Your task to perform on an android device: check android version Image 0: 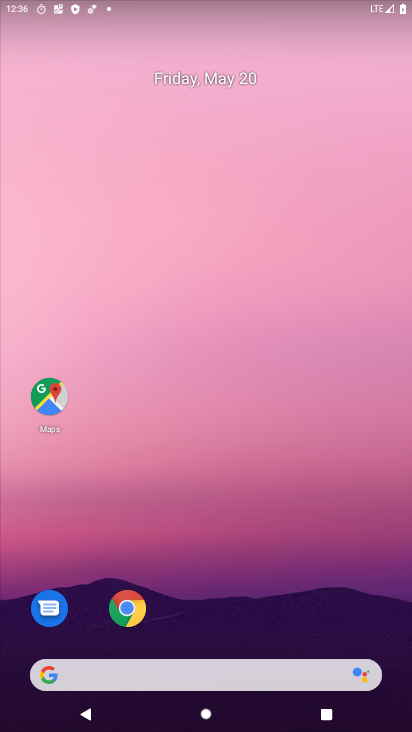
Step 0: drag from (289, 568) to (327, 89)
Your task to perform on an android device: check android version Image 1: 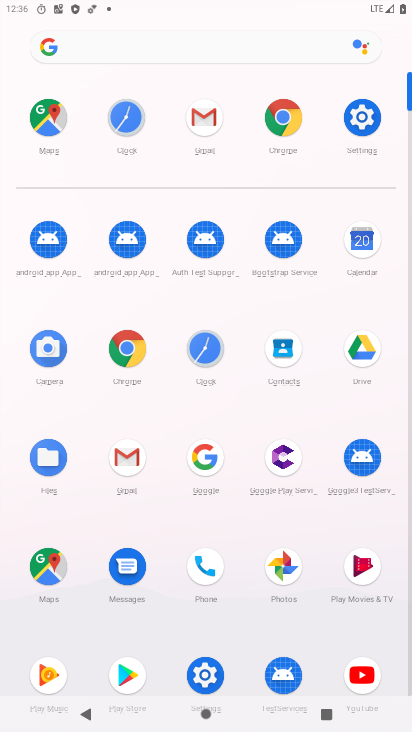
Step 1: click (359, 127)
Your task to perform on an android device: check android version Image 2: 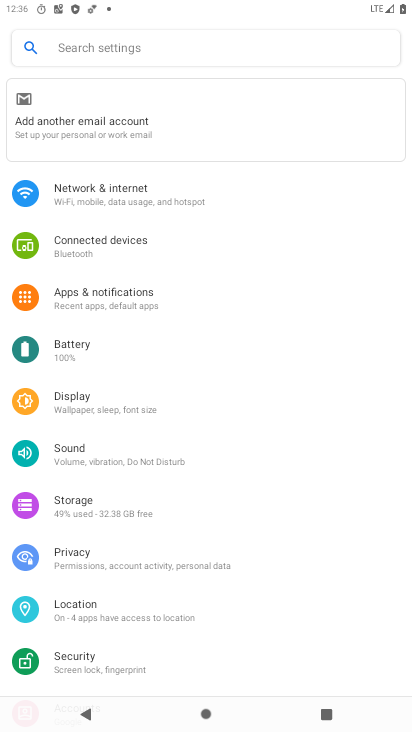
Step 2: drag from (156, 607) to (161, 165)
Your task to perform on an android device: check android version Image 3: 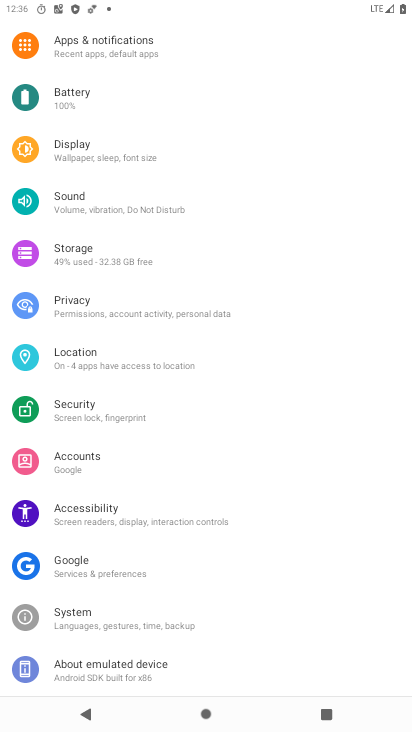
Step 3: click (72, 656)
Your task to perform on an android device: check android version Image 4: 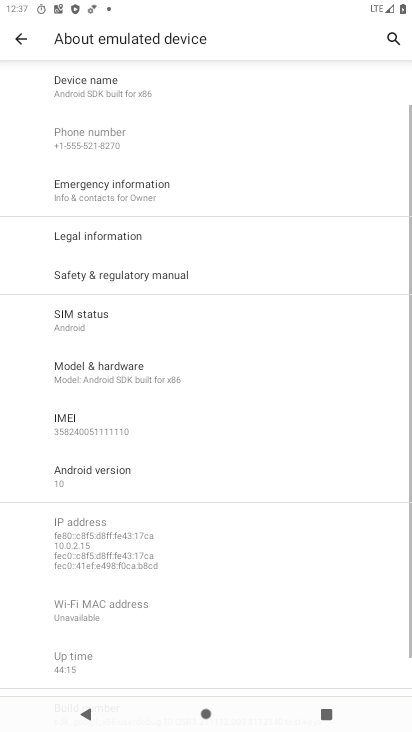
Step 4: task complete